Your task to perform on an android device: delete a single message in the gmail app Image 0: 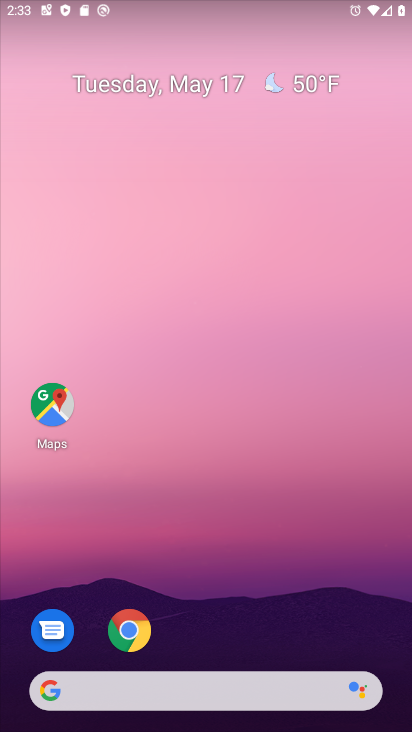
Step 0: drag from (188, 447) to (196, 287)
Your task to perform on an android device: delete a single message in the gmail app Image 1: 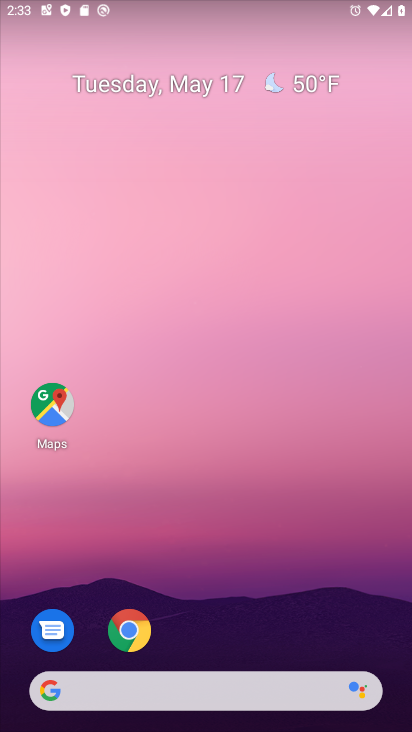
Step 1: drag from (251, 640) to (258, 296)
Your task to perform on an android device: delete a single message in the gmail app Image 2: 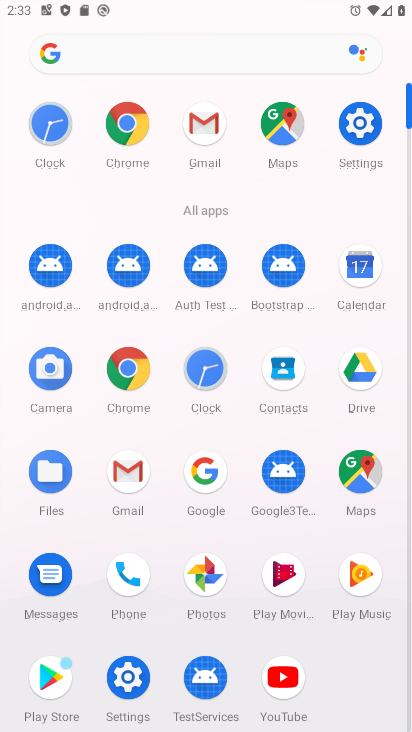
Step 2: click (205, 119)
Your task to perform on an android device: delete a single message in the gmail app Image 3: 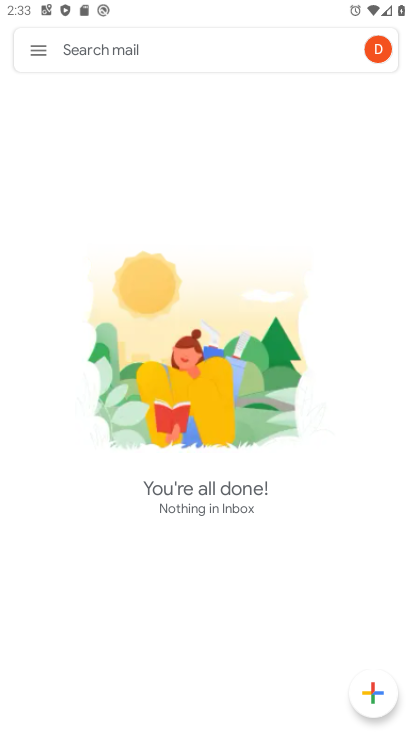
Step 3: click (31, 51)
Your task to perform on an android device: delete a single message in the gmail app Image 4: 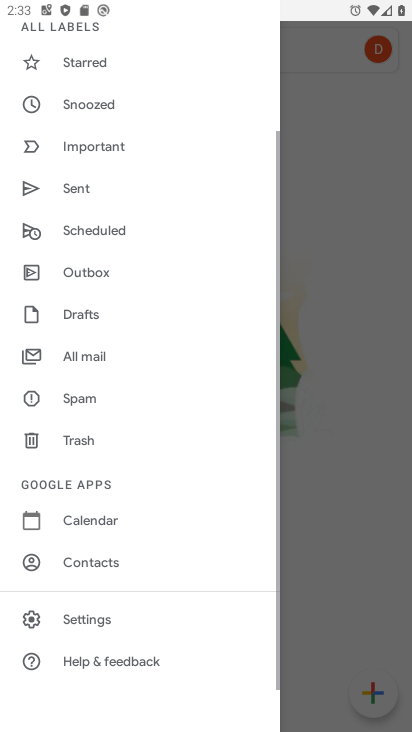
Step 4: drag from (118, 47) to (192, 487)
Your task to perform on an android device: delete a single message in the gmail app Image 5: 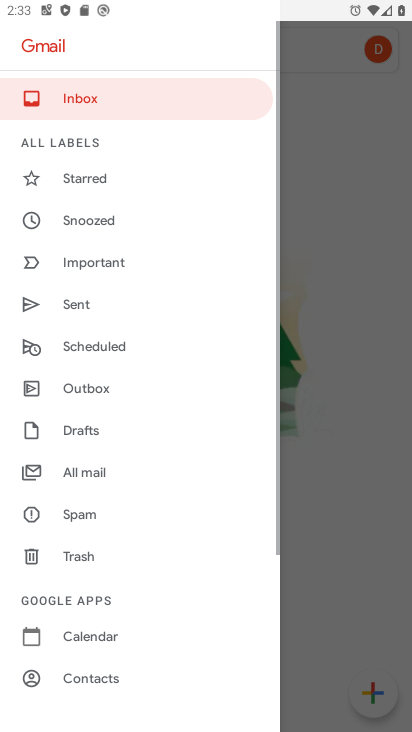
Step 5: click (79, 98)
Your task to perform on an android device: delete a single message in the gmail app Image 6: 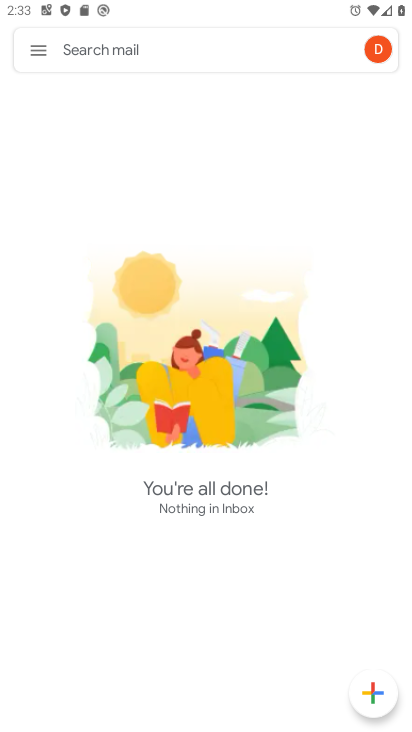
Step 6: task complete